Your task to perform on an android device: Open location settings Image 0: 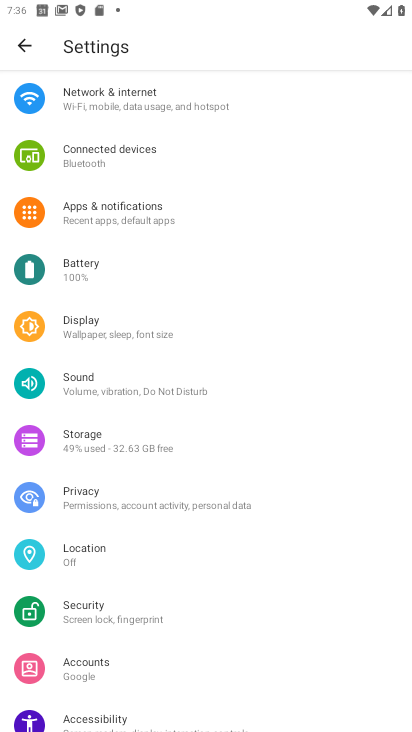
Step 0: click (85, 558)
Your task to perform on an android device: Open location settings Image 1: 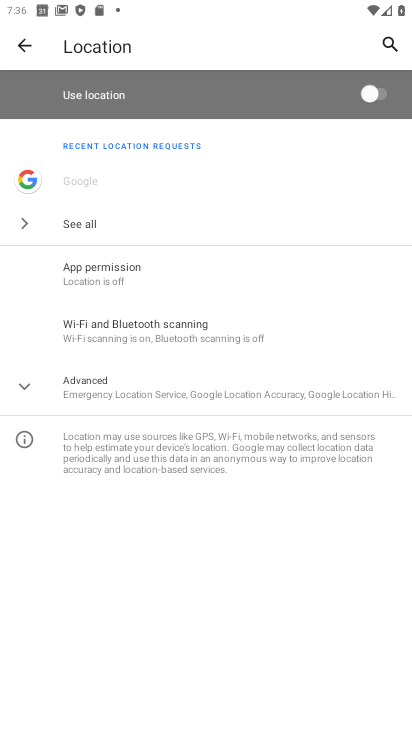
Step 1: task complete